Your task to perform on an android device: Go to Maps Image 0: 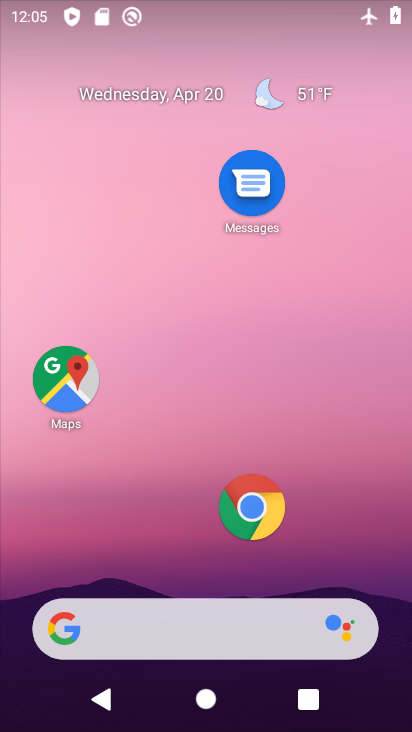
Step 0: click (63, 384)
Your task to perform on an android device: Go to Maps Image 1: 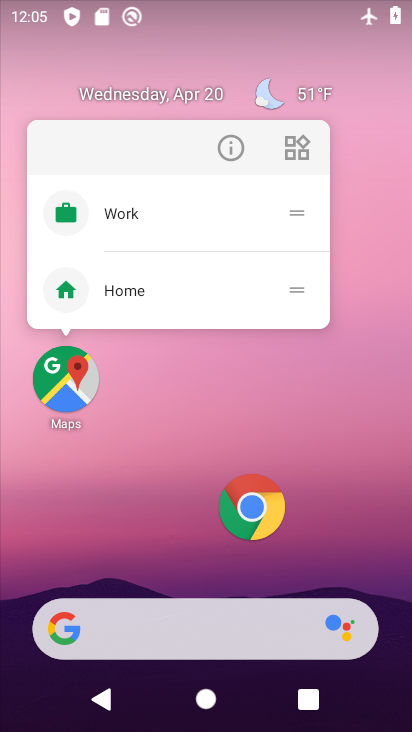
Step 1: click (63, 384)
Your task to perform on an android device: Go to Maps Image 2: 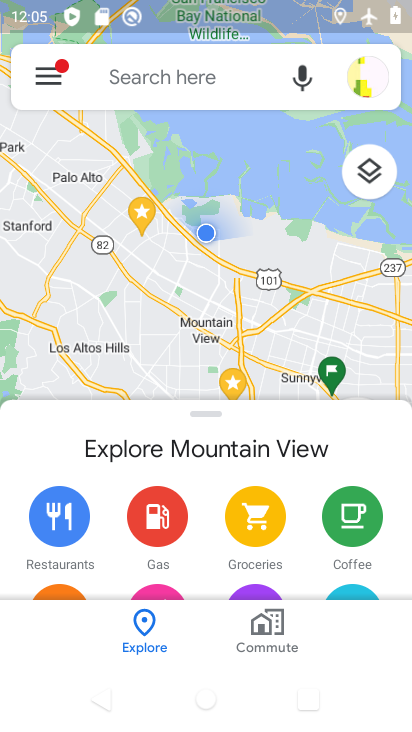
Step 2: task complete